Your task to perform on an android device: turn off airplane mode Image 0: 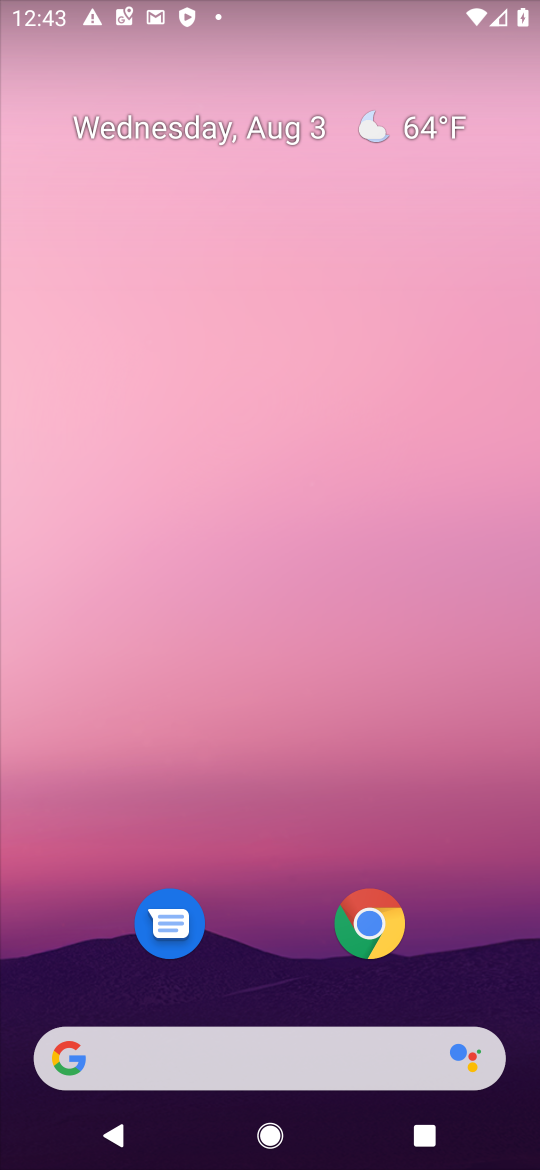
Step 0: press home button
Your task to perform on an android device: turn off airplane mode Image 1: 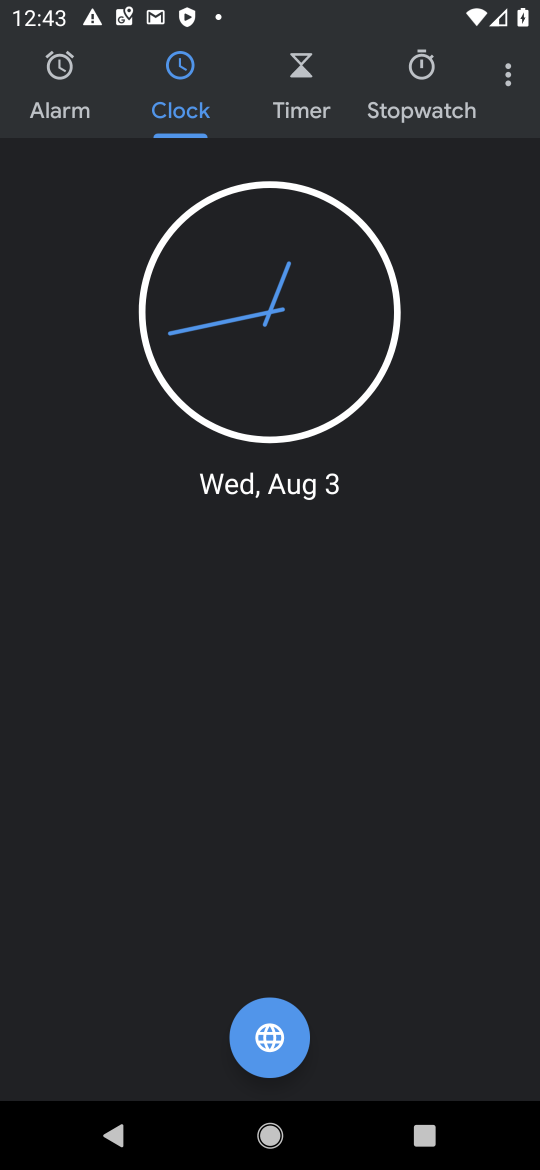
Step 1: click (460, 53)
Your task to perform on an android device: turn off airplane mode Image 2: 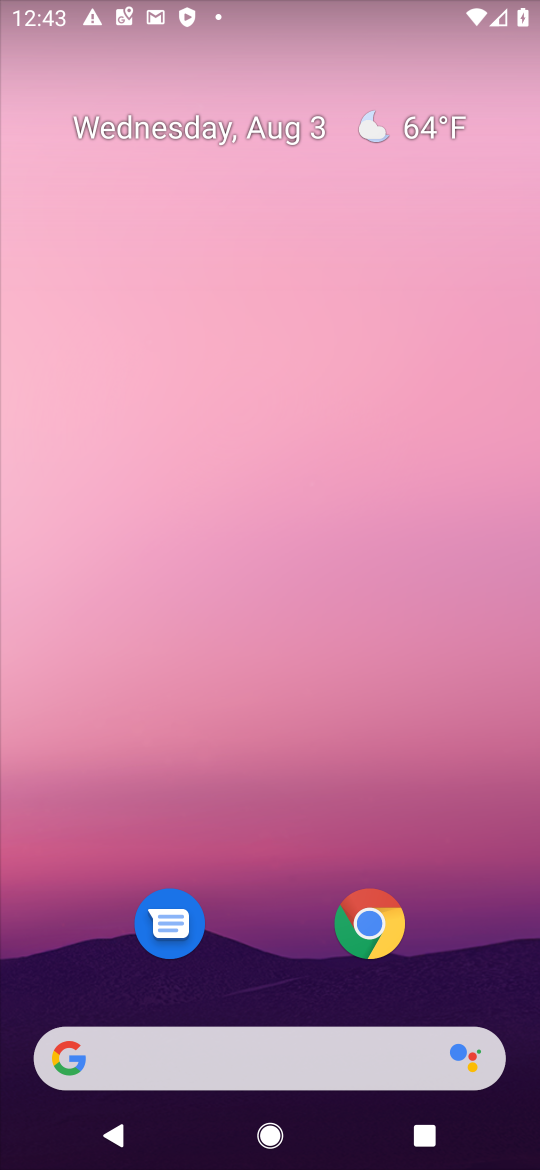
Step 2: drag from (268, 903) to (360, 473)
Your task to perform on an android device: turn off airplane mode Image 3: 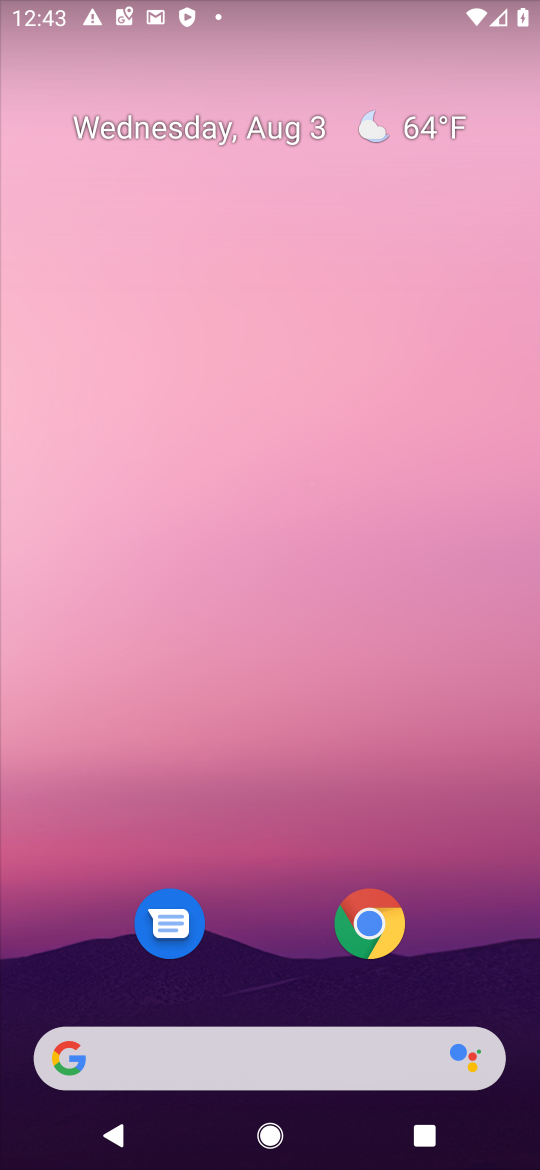
Step 3: drag from (302, 563) to (343, 380)
Your task to perform on an android device: turn off airplane mode Image 4: 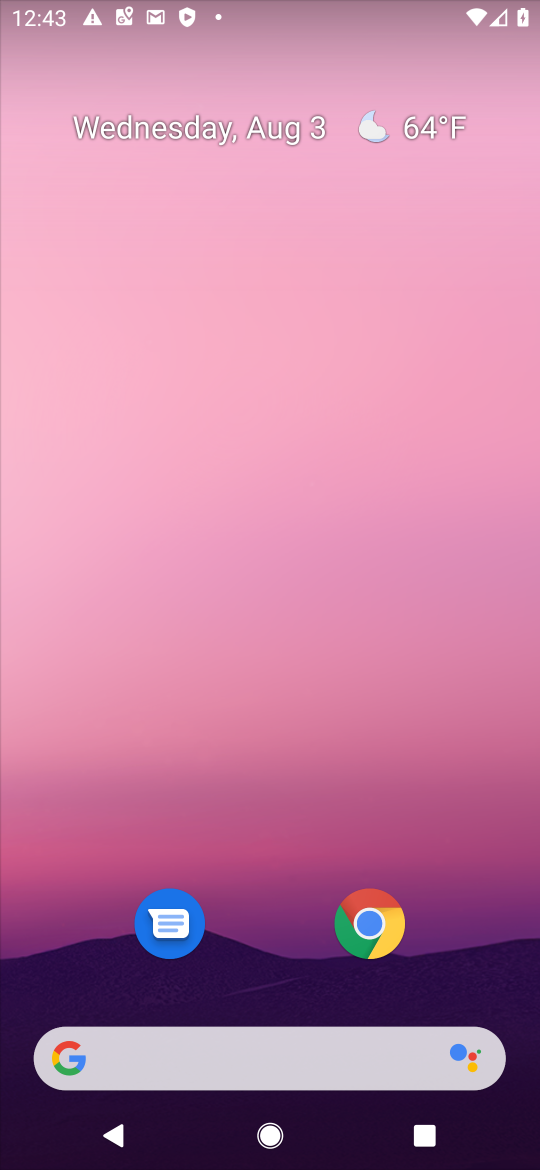
Step 4: drag from (257, 894) to (358, 362)
Your task to perform on an android device: turn off airplane mode Image 5: 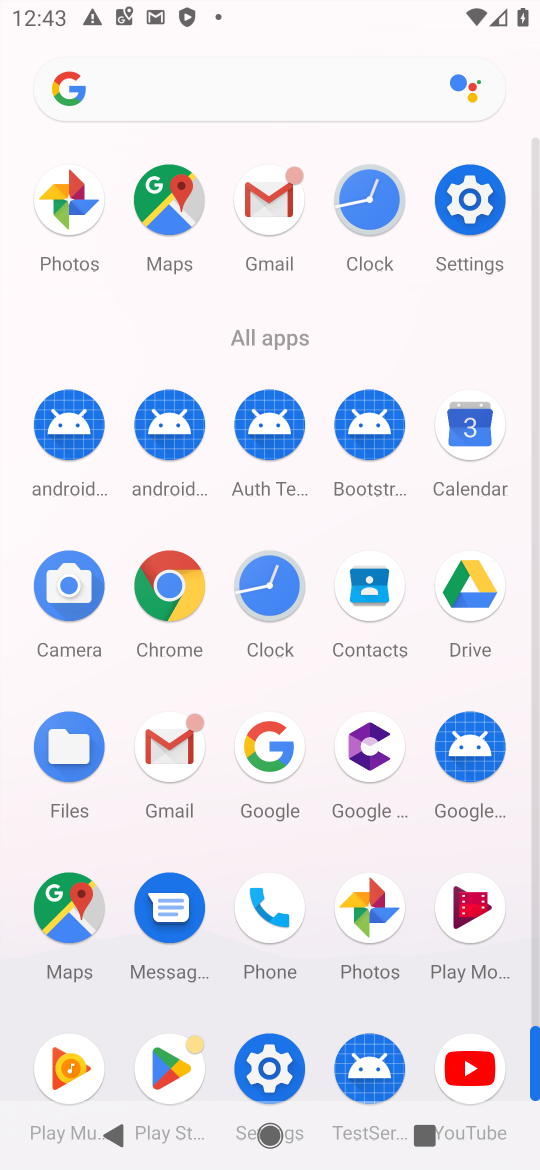
Step 5: click (280, 1054)
Your task to perform on an android device: turn off airplane mode Image 6: 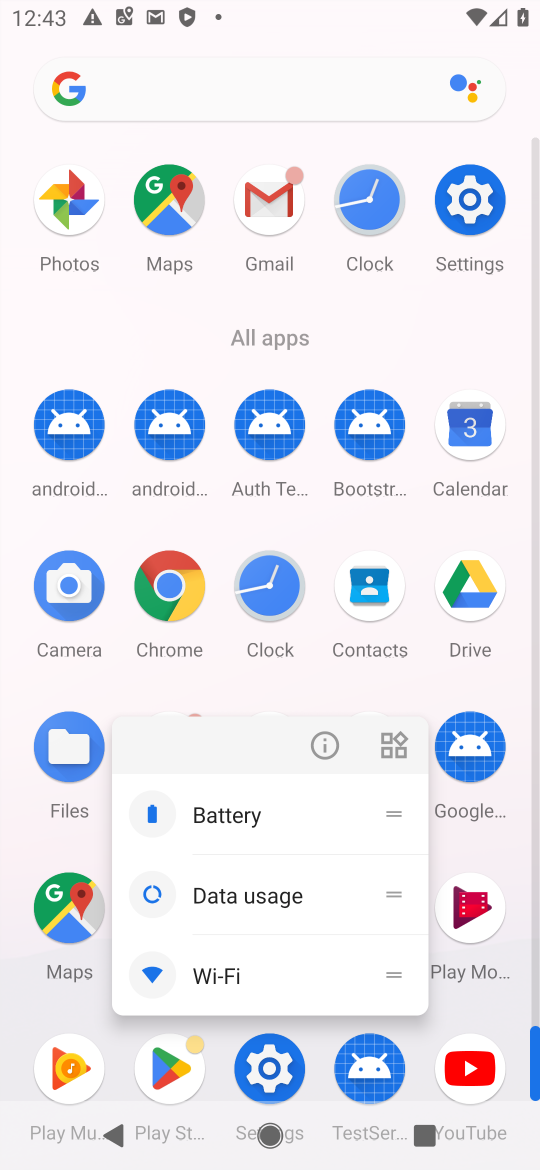
Step 6: click (326, 734)
Your task to perform on an android device: turn off airplane mode Image 7: 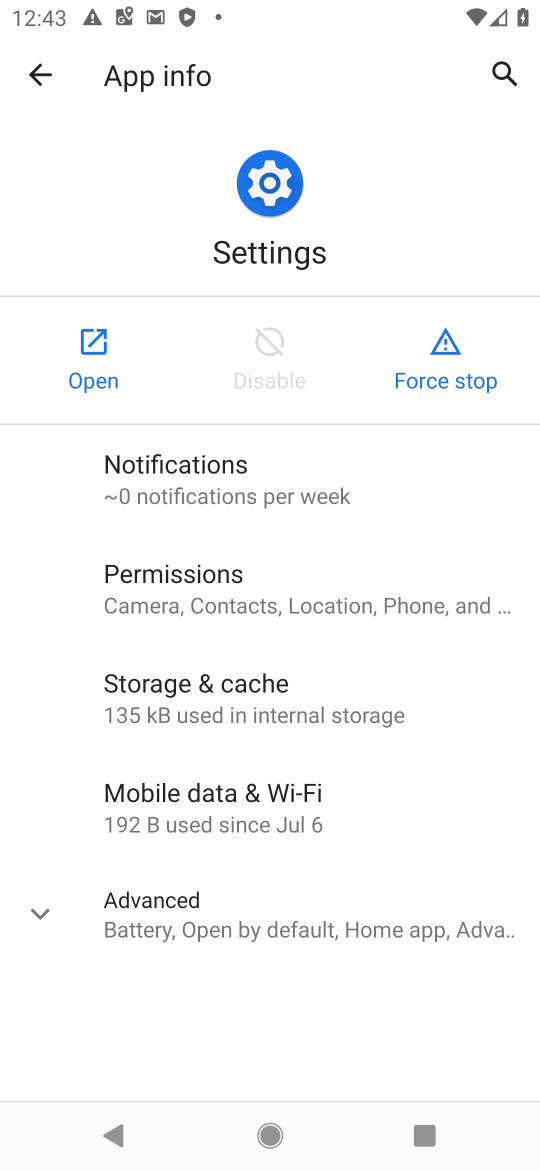
Step 7: click (94, 356)
Your task to perform on an android device: turn off airplane mode Image 8: 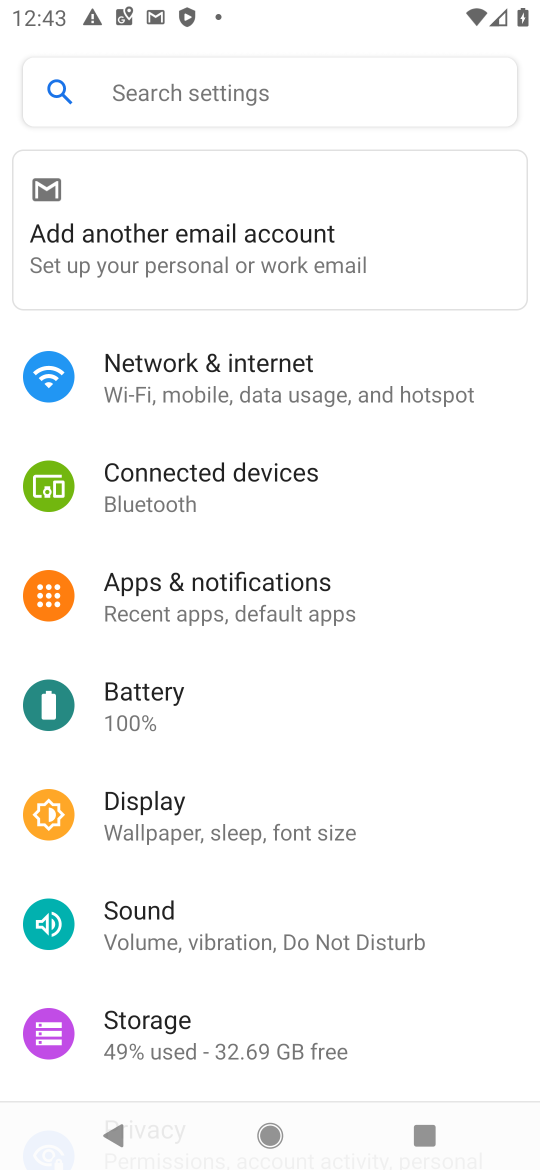
Step 8: drag from (252, 696) to (325, 437)
Your task to perform on an android device: turn off airplane mode Image 9: 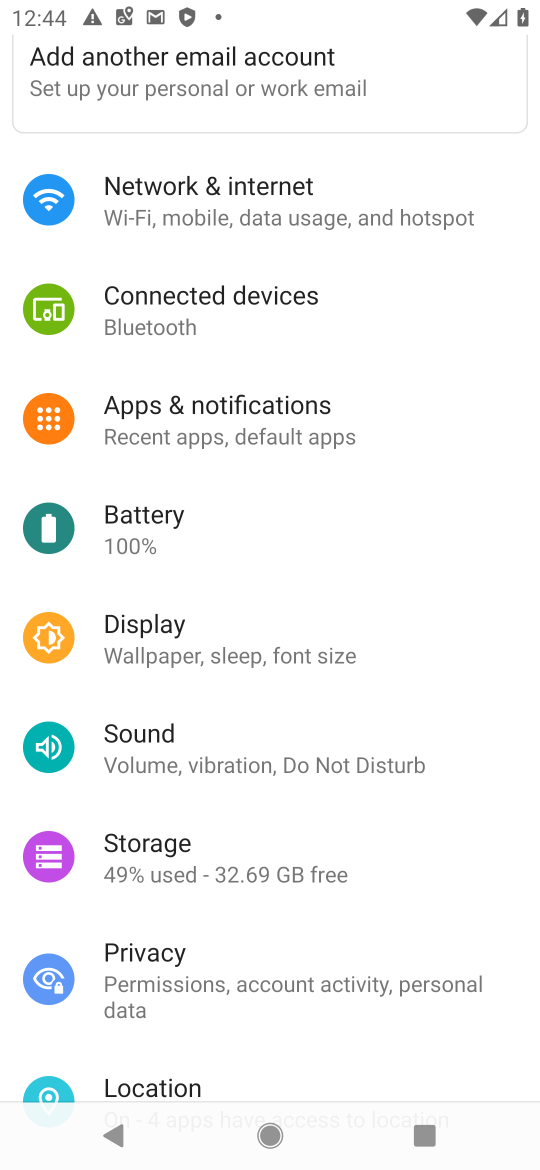
Step 9: drag from (307, 912) to (311, 460)
Your task to perform on an android device: turn off airplane mode Image 10: 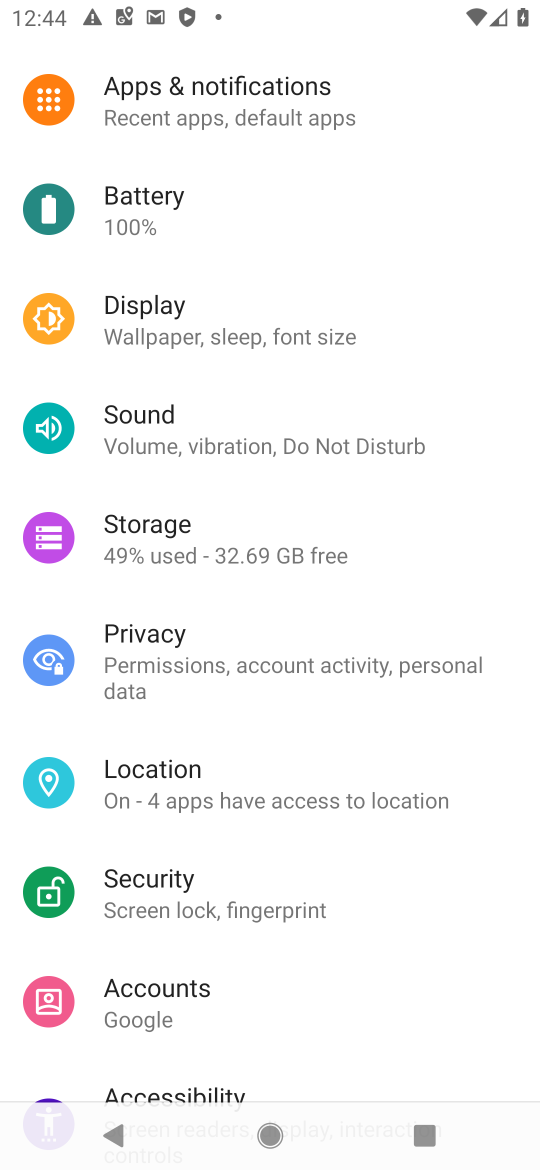
Step 10: drag from (301, 425) to (252, 1150)
Your task to perform on an android device: turn off airplane mode Image 11: 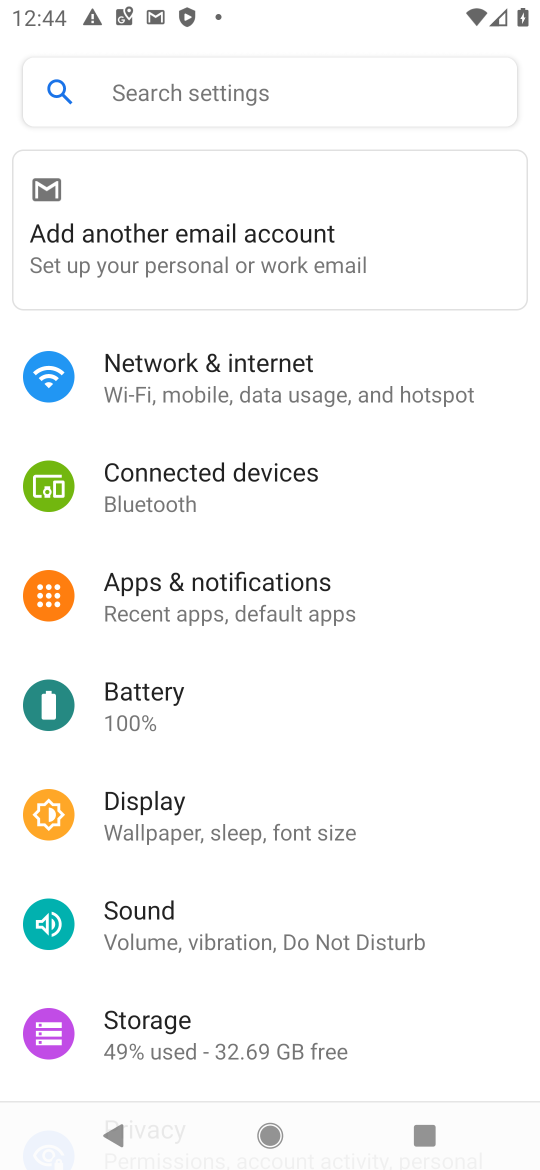
Step 11: click (241, 393)
Your task to perform on an android device: turn off airplane mode Image 12: 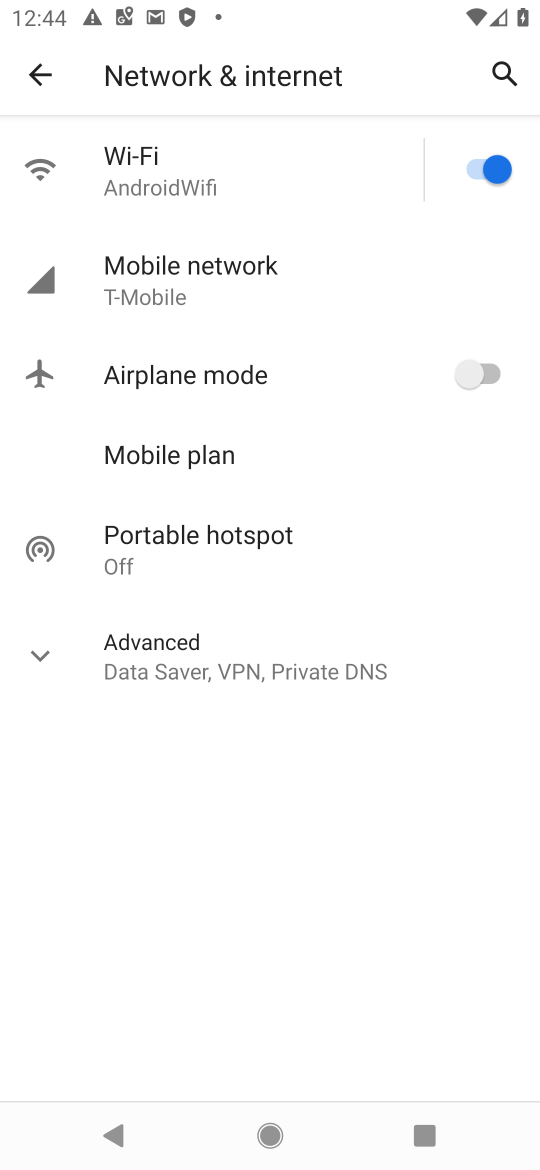
Step 12: click (196, 711)
Your task to perform on an android device: turn off airplane mode Image 13: 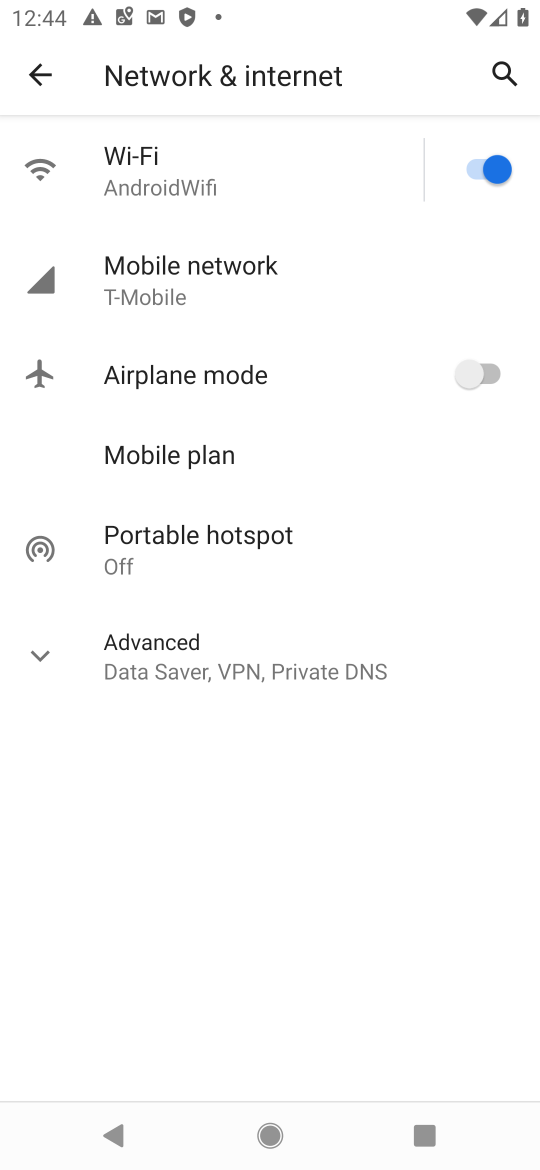
Step 13: click (204, 674)
Your task to perform on an android device: turn off airplane mode Image 14: 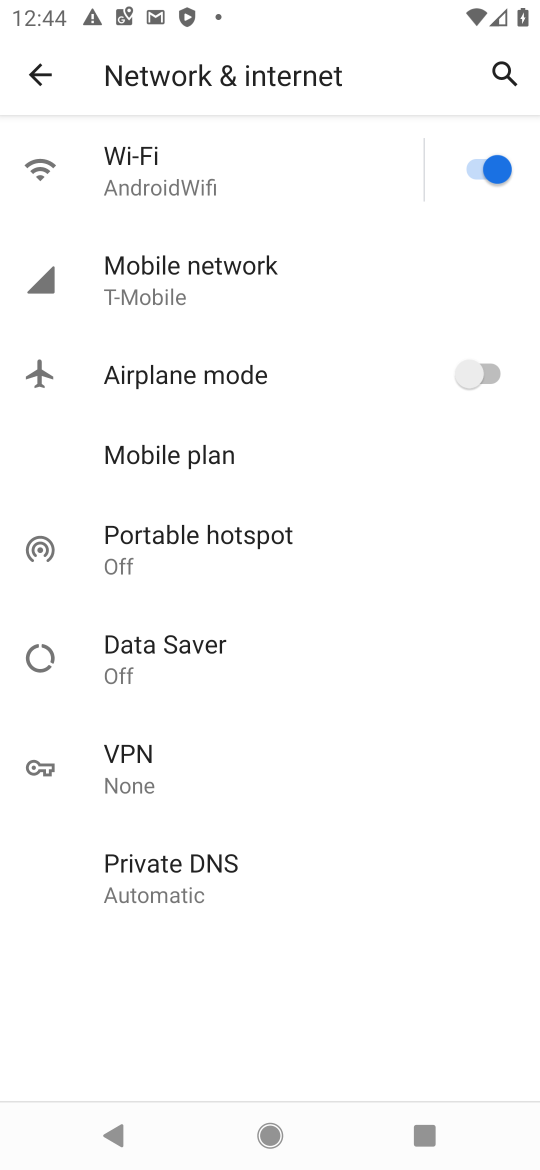
Step 14: task complete